Your task to perform on an android device: open app "Walmart Shopping & Grocery" (install if not already installed) Image 0: 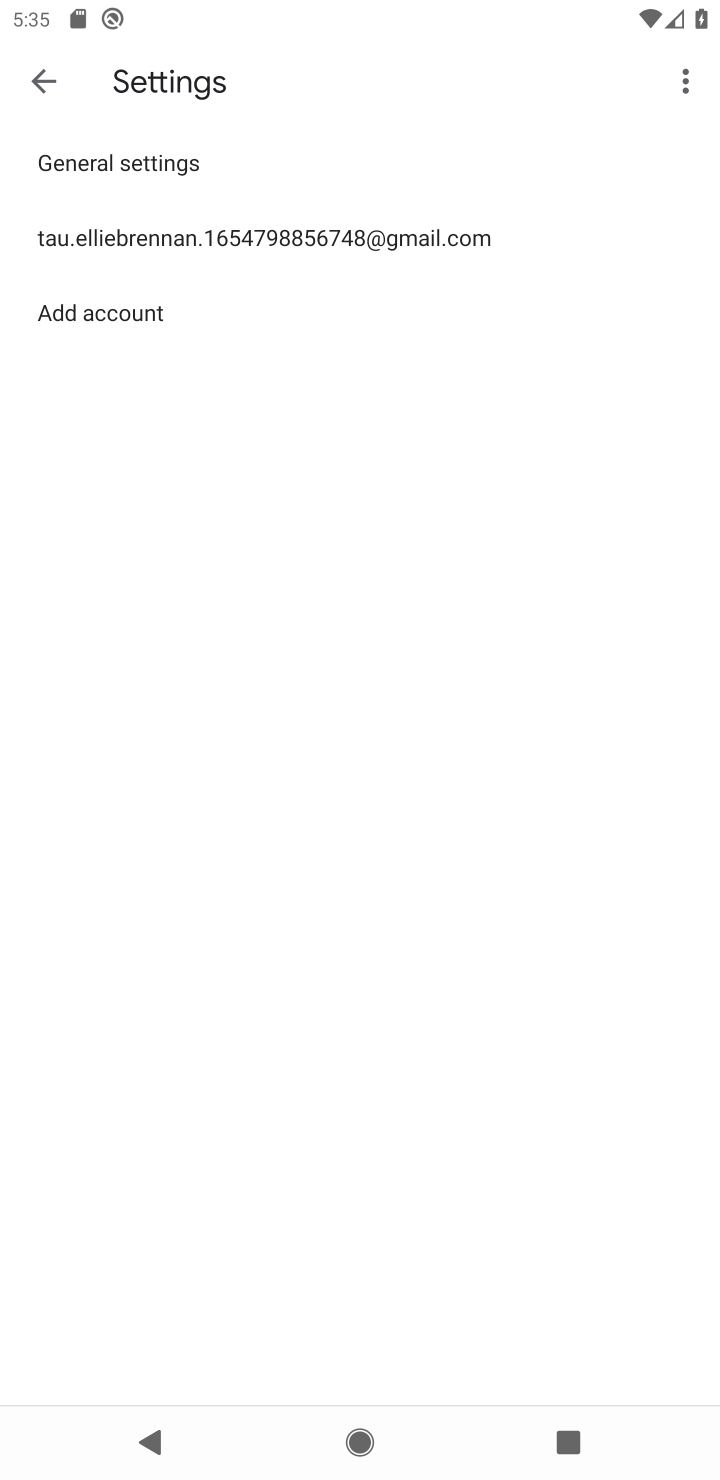
Step 0: press home button
Your task to perform on an android device: open app "Walmart Shopping & Grocery" (install if not already installed) Image 1: 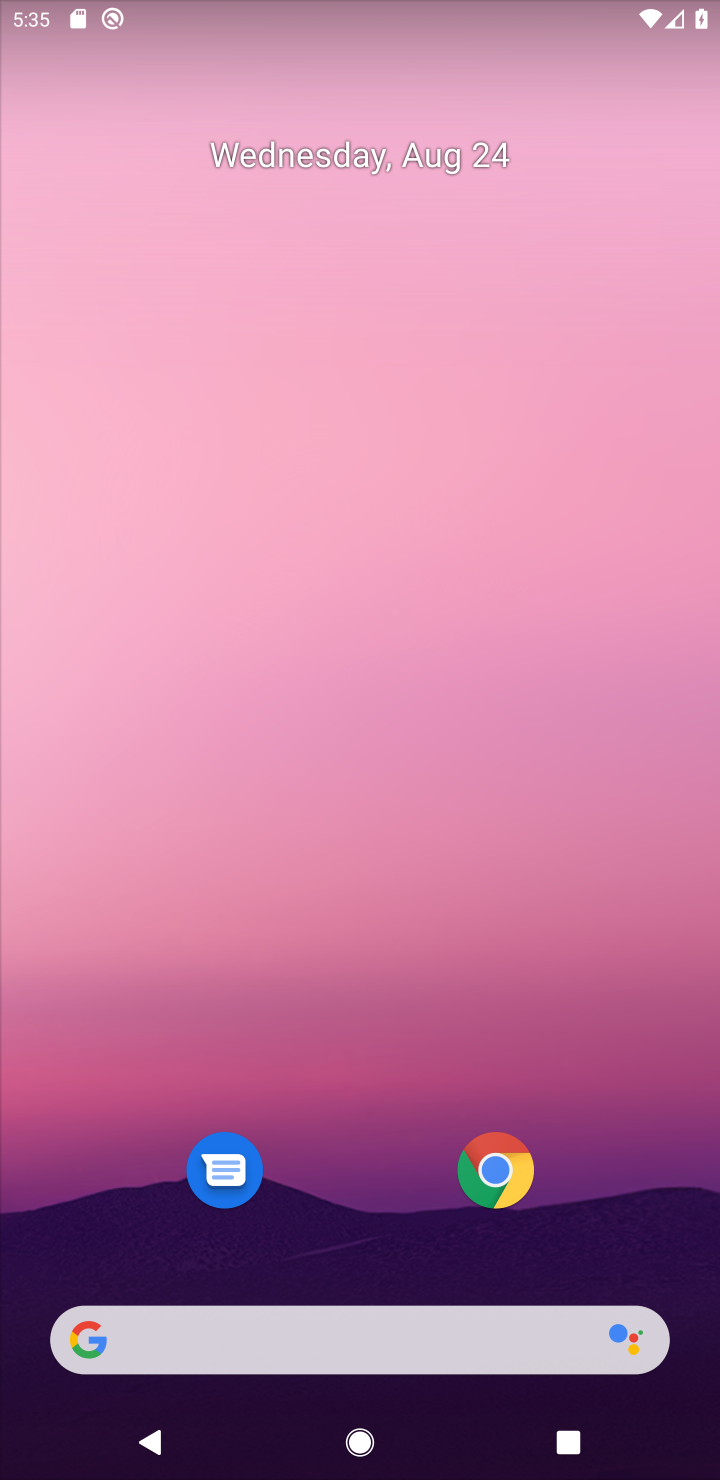
Step 1: click (442, 139)
Your task to perform on an android device: open app "Walmart Shopping & Grocery" (install if not already installed) Image 2: 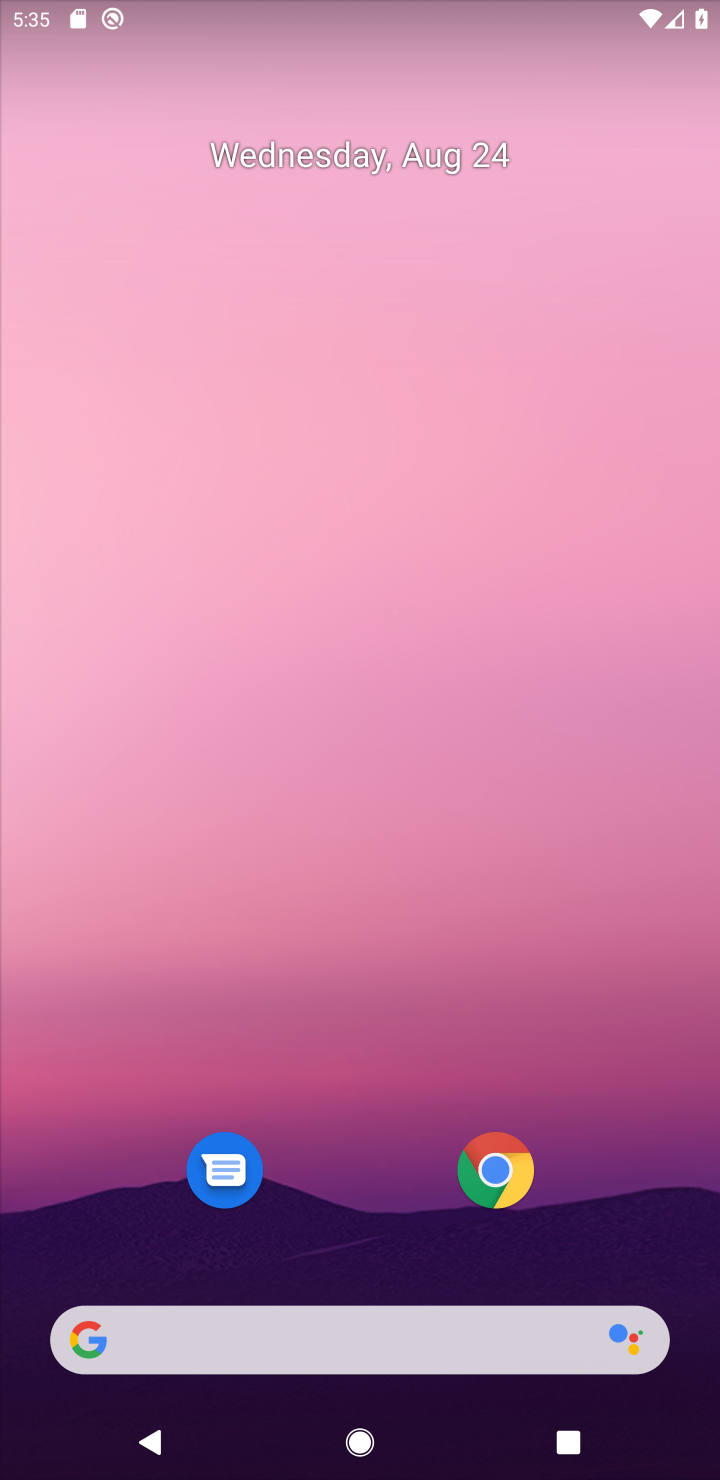
Step 2: drag from (364, 1233) to (344, 435)
Your task to perform on an android device: open app "Walmart Shopping & Grocery" (install if not already installed) Image 3: 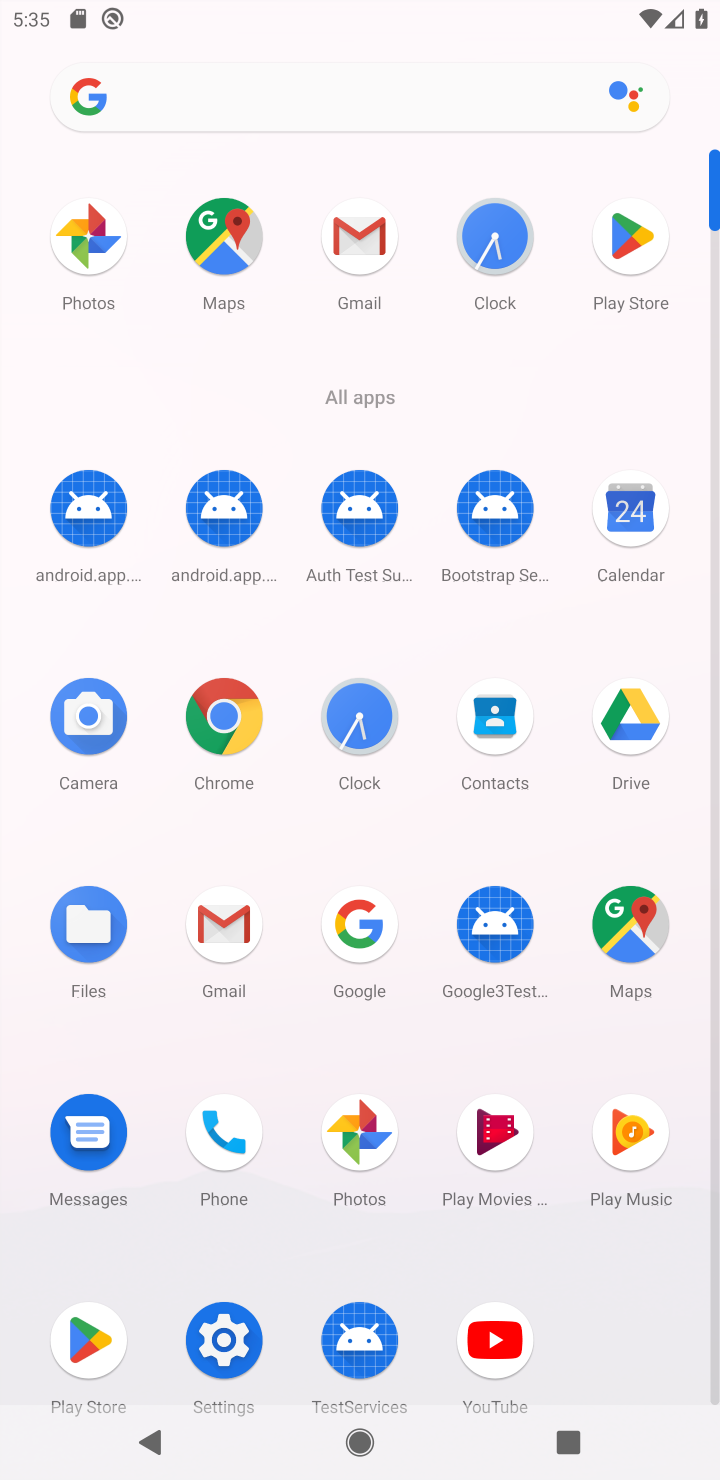
Step 3: click (626, 262)
Your task to perform on an android device: open app "Walmart Shopping & Grocery" (install if not already installed) Image 4: 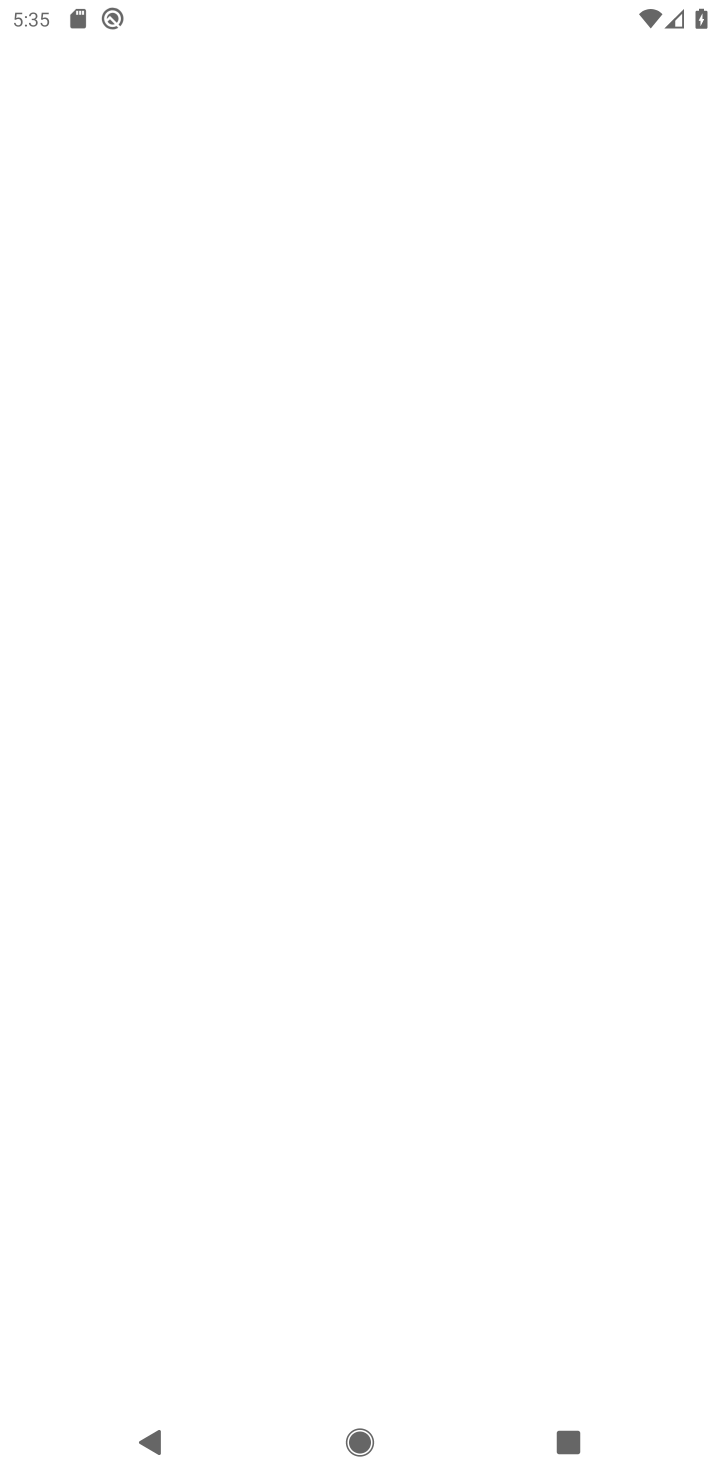
Step 4: task complete